Your task to perform on an android device: Go to location settings Image 0: 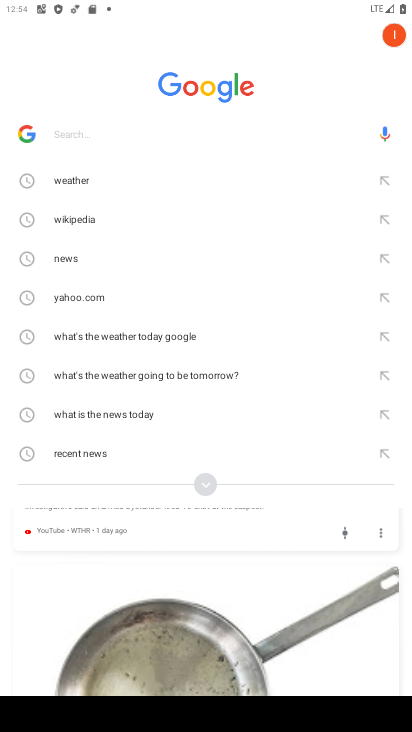
Step 0: press home button
Your task to perform on an android device: Go to location settings Image 1: 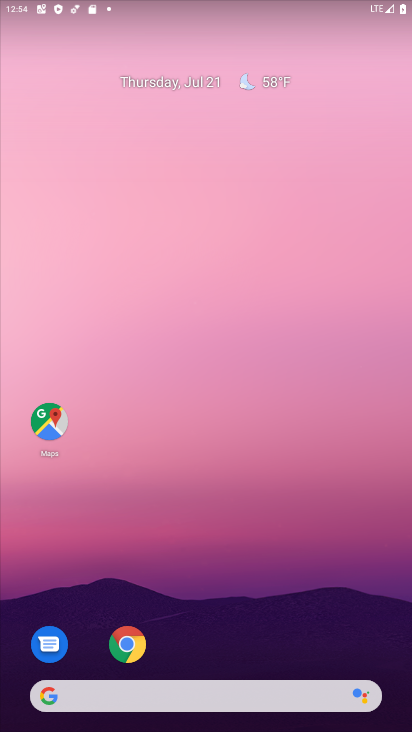
Step 1: drag from (284, 600) to (287, 40)
Your task to perform on an android device: Go to location settings Image 2: 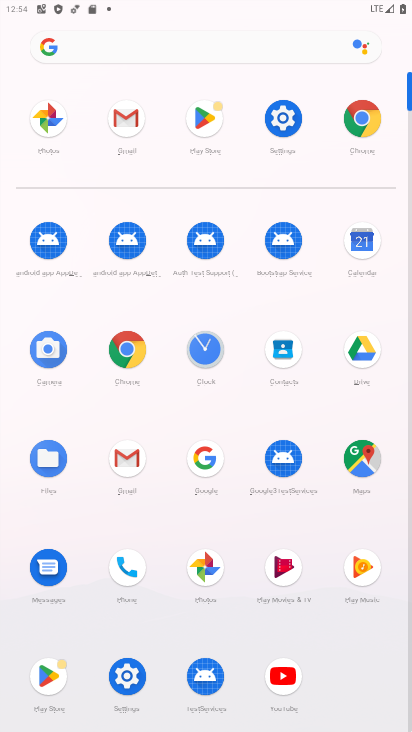
Step 2: click (290, 130)
Your task to perform on an android device: Go to location settings Image 3: 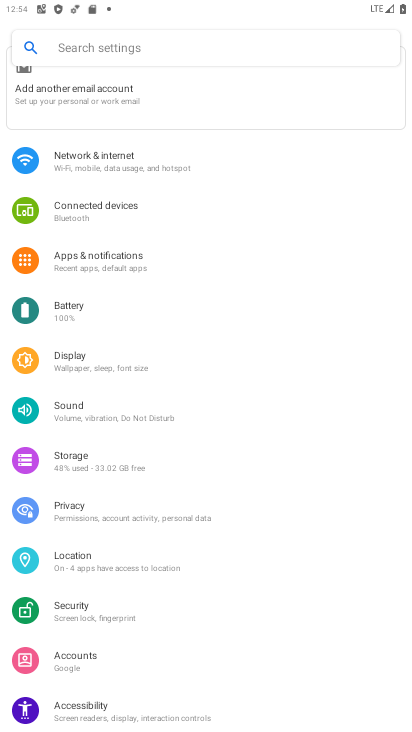
Step 3: drag from (351, 465) to (348, 412)
Your task to perform on an android device: Go to location settings Image 4: 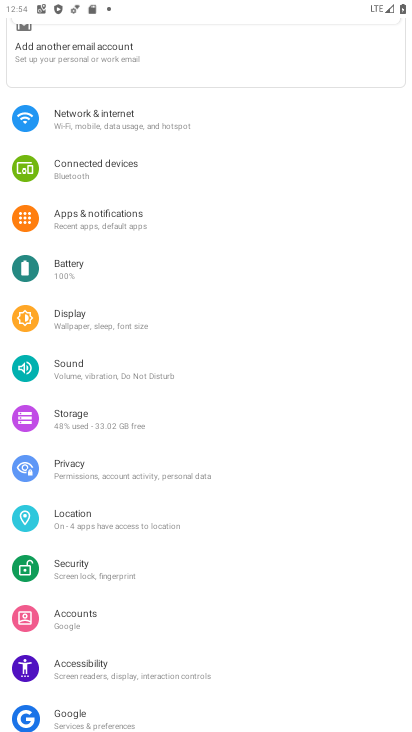
Step 4: drag from (357, 538) to (318, 349)
Your task to perform on an android device: Go to location settings Image 5: 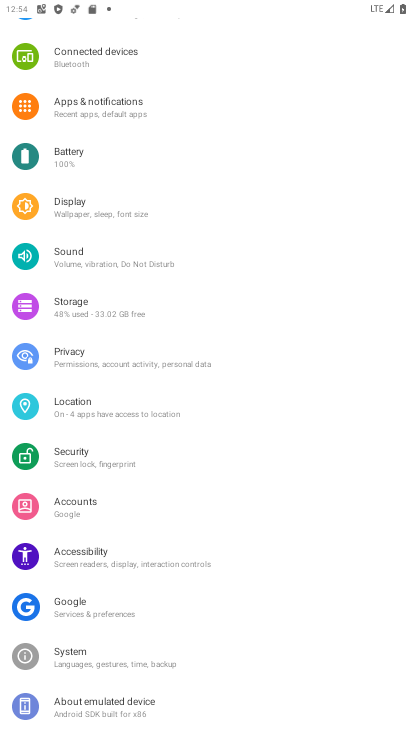
Step 5: click (203, 413)
Your task to perform on an android device: Go to location settings Image 6: 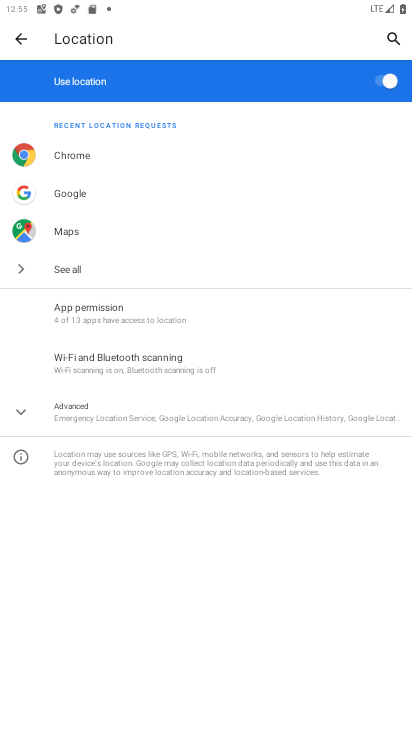
Step 6: task complete